Your task to perform on an android device: turn off smart reply in the gmail app Image 0: 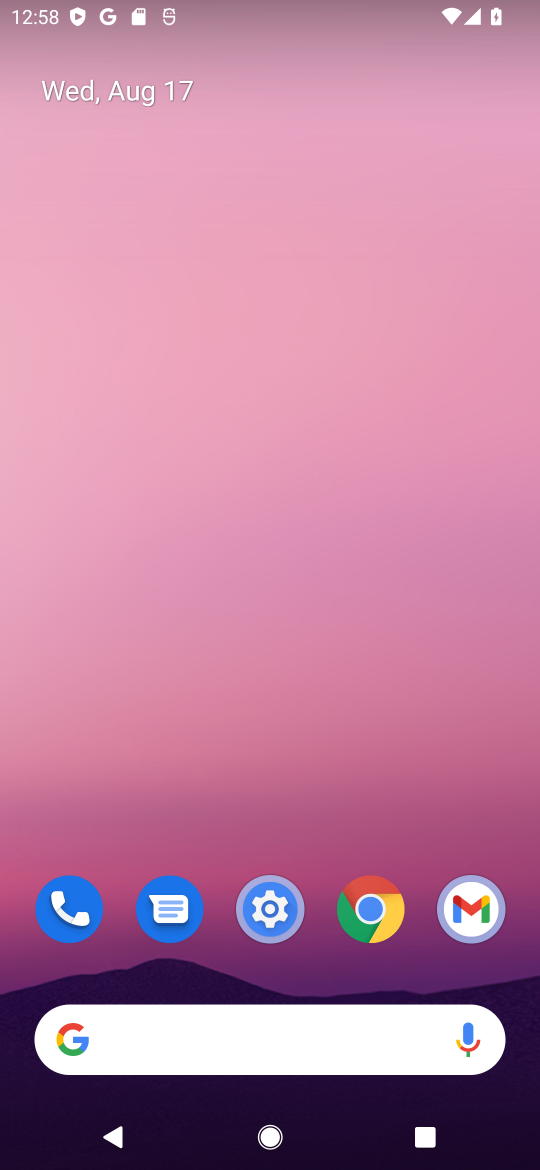
Step 0: drag from (359, 809) to (302, 47)
Your task to perform on an android device: turn off smart reply in the gmail app Image 1: 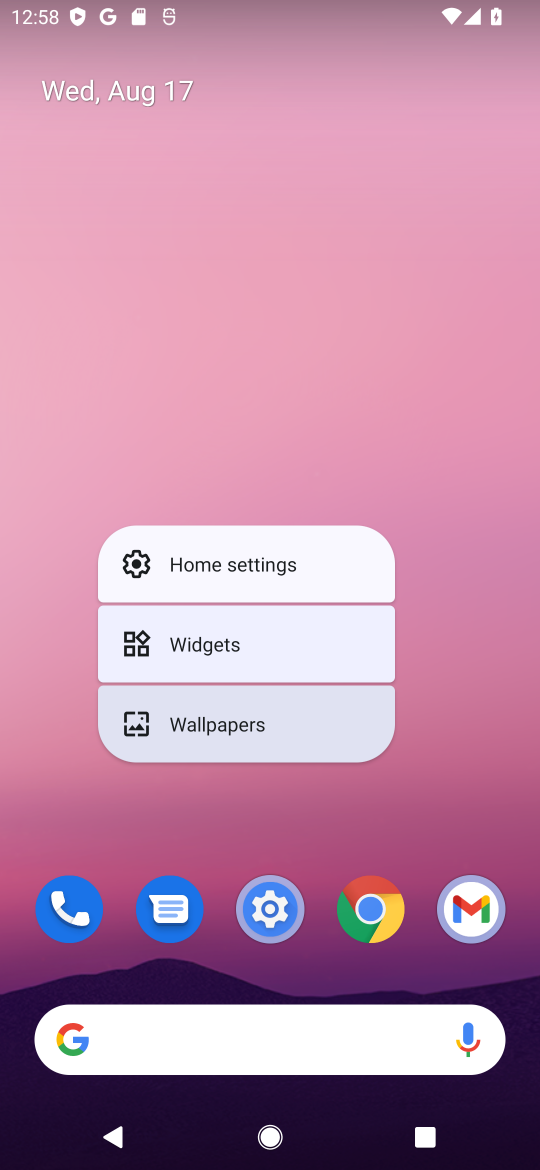
Step 1: click (476, 914)
Your task to perform on an android device: turn off smart reply in the gmail app Image 2: 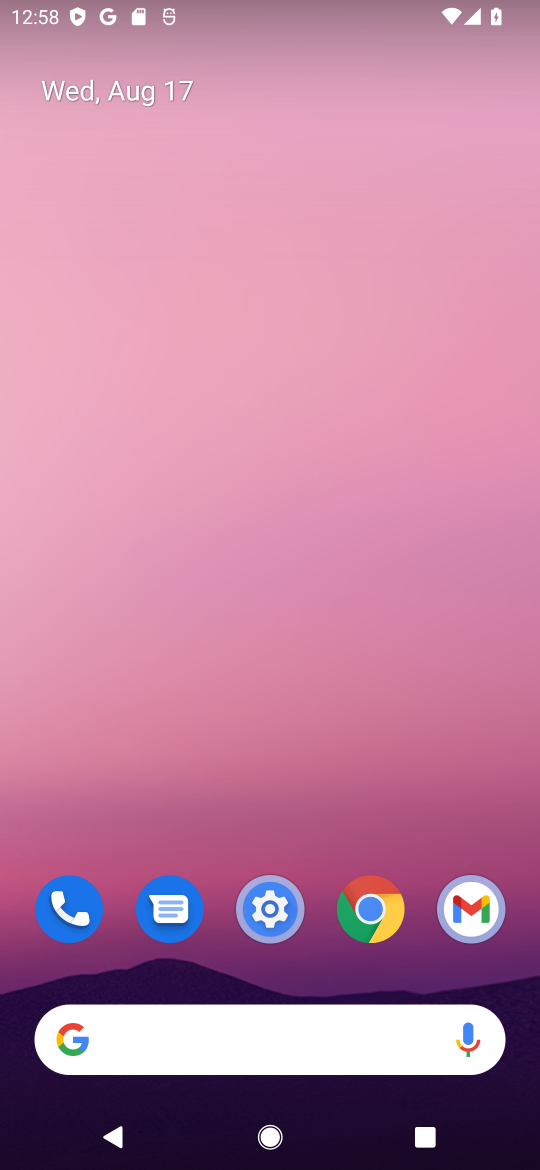
Step 2: click (472, 922)
Your task to perform on an android device: turn off smart reply in the gmail app Image 3: 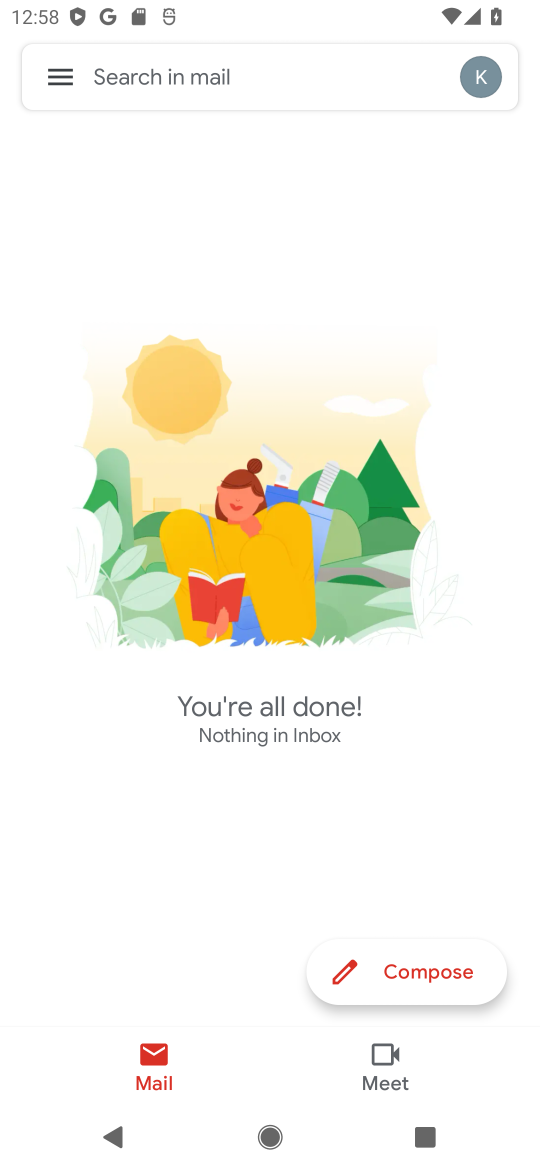
Step 3: click (61, 73)
Your task to perform on an android device: turn off smart reply in the gmail app Image 4: 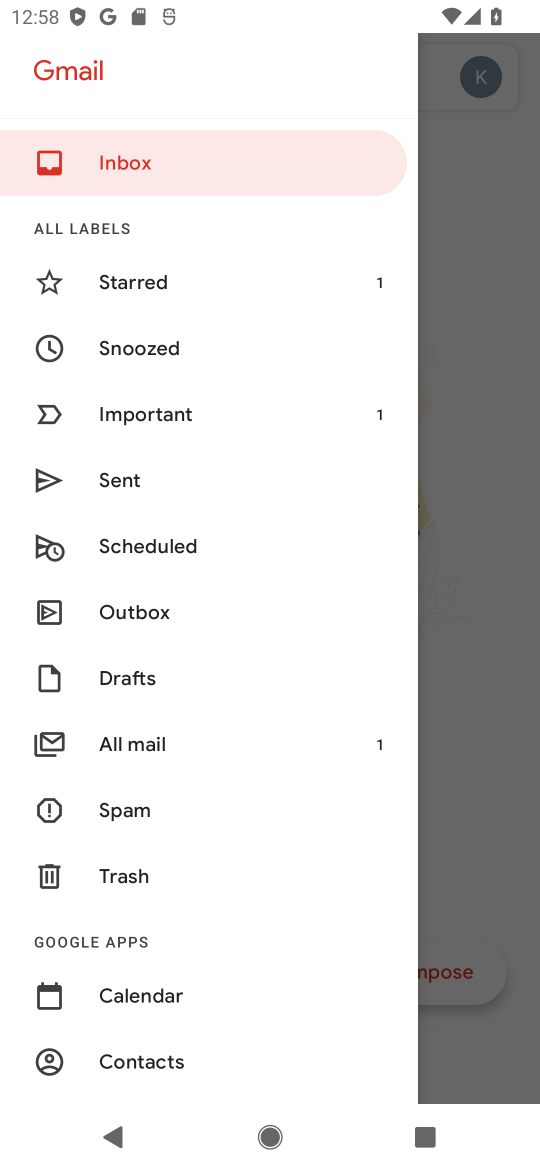
Step 4: drag from (204, 945) to (169, 387)
Your task to perform on an android device: turn off smart reply in the gmail app Image 5: 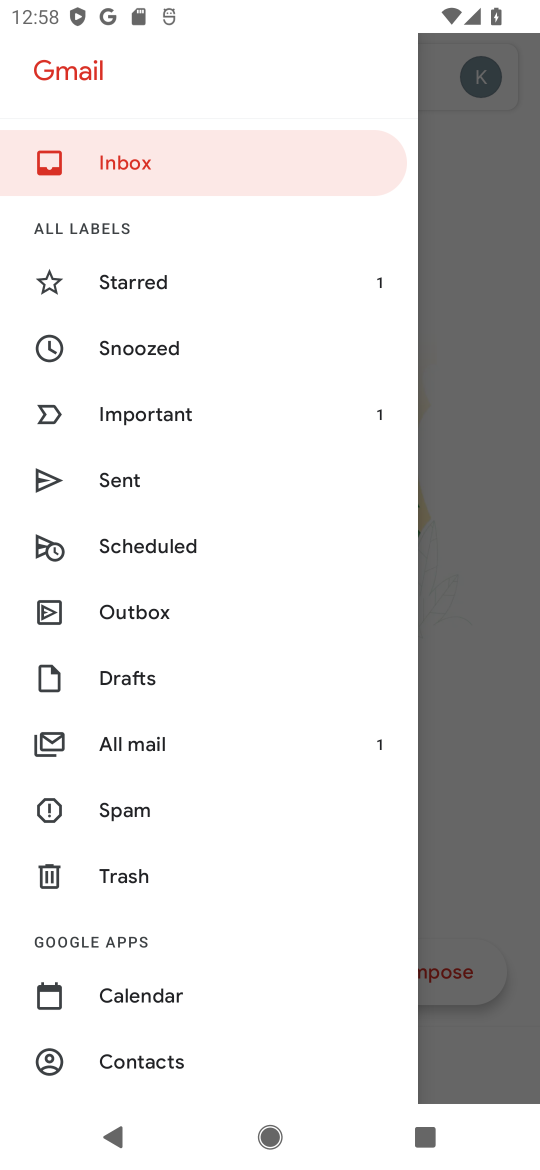
Step 5: drag from (210, 953) to (208, 336)
Your task to perform on an android device: turn off smart reply in the gmail app Image 6: 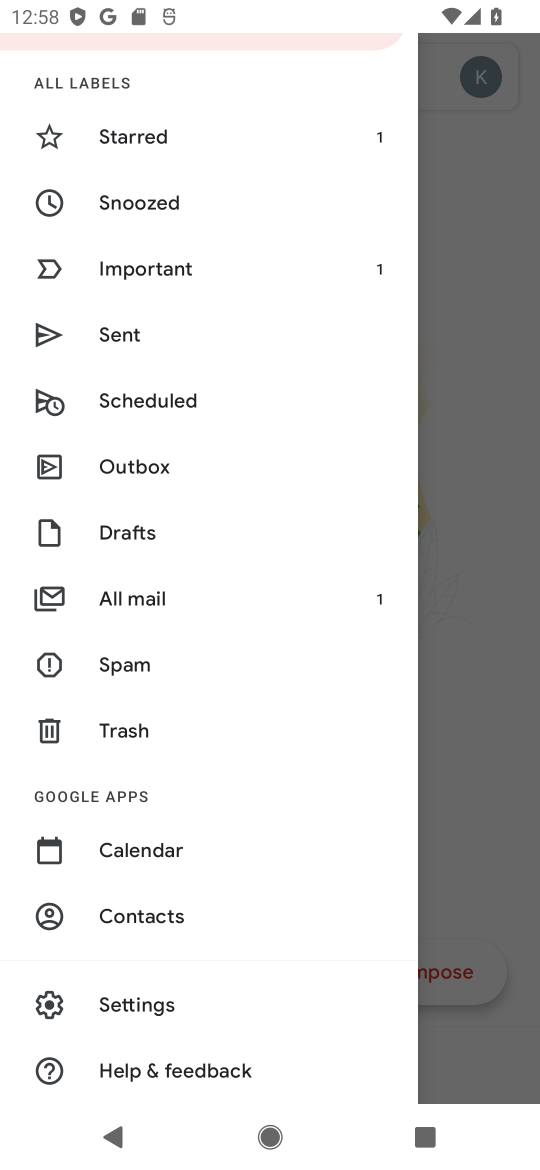
Step 6: click (117, 1002)
Your task to perform on an android device: turn off smart reply in the gmail app Image 7: 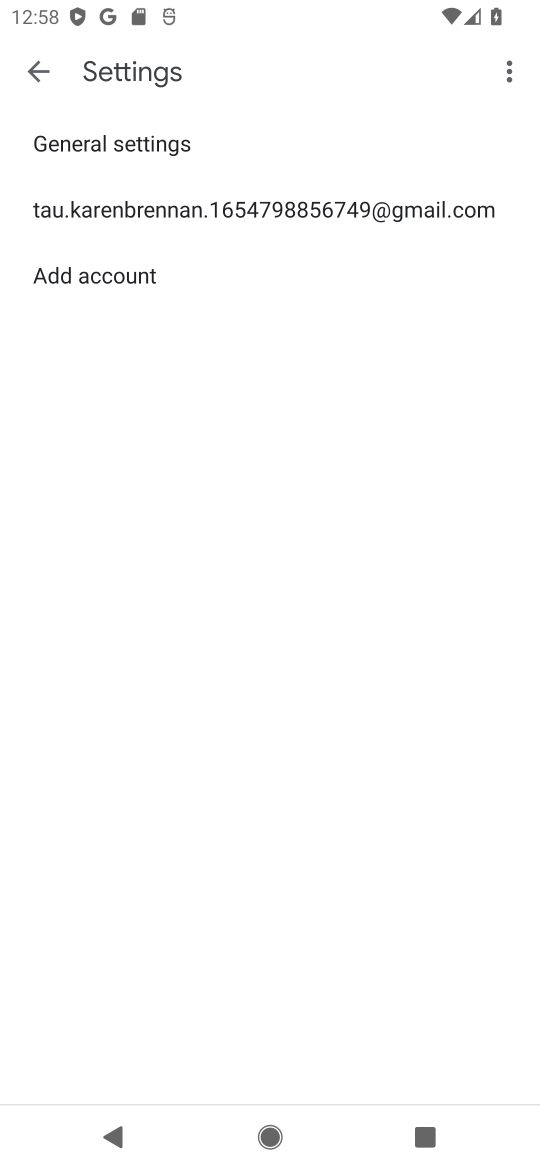
Step 7: click (137, 211)
Your task to perform on an android device: turn off smart reply in the gmail app Image 8: 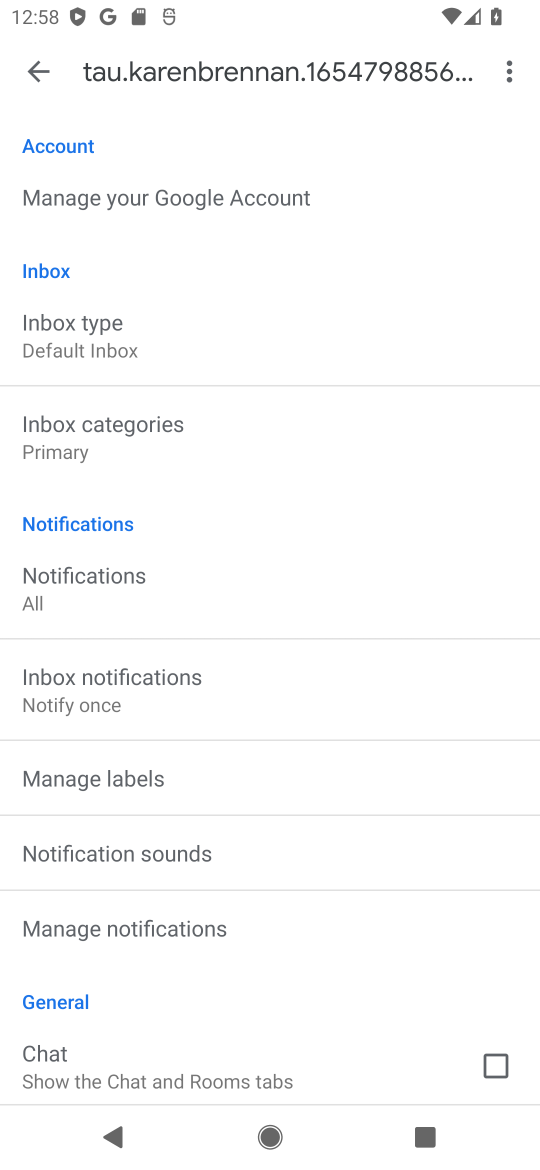
Step 8: drag from (261, 963) to (261, 564)
Your task to perform on an android device: turn off smart reply in the gmail app Image 9: 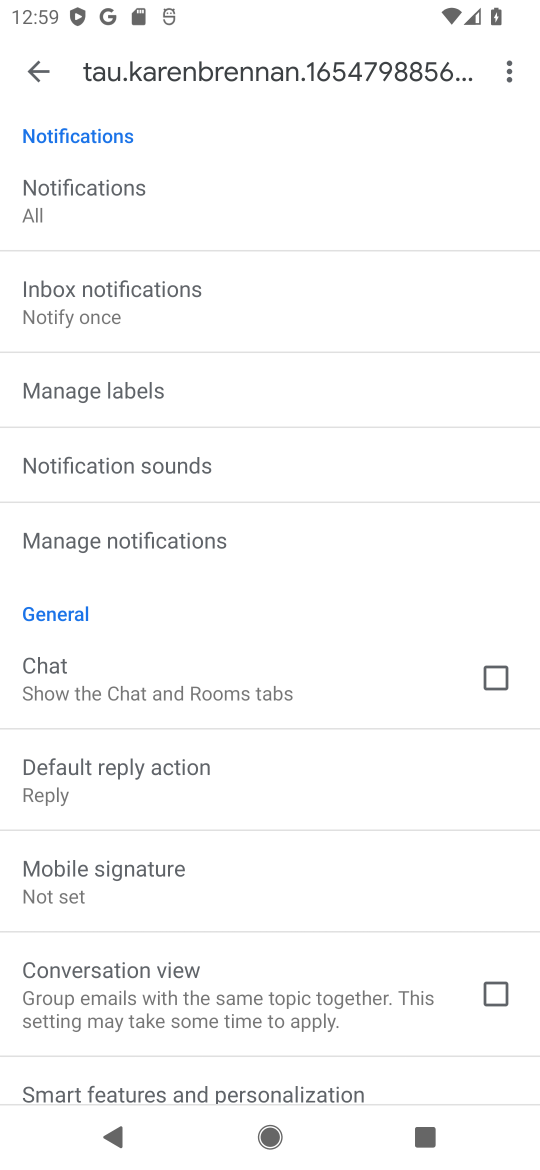
Step 9: drag from (247, 901) to (206, 323)
Your task to perform on an android device: turn off smart reply in the gmail app Image 10: 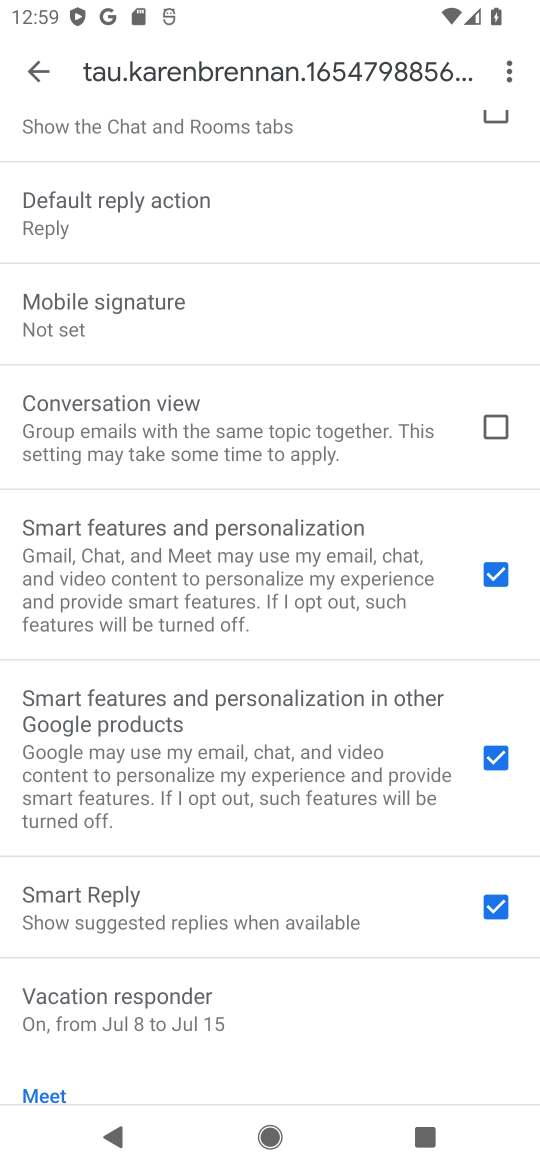
Step 10: click (488, 905)
Your task to perform on an android device: turn off smart reply in the gmail app Image 11: 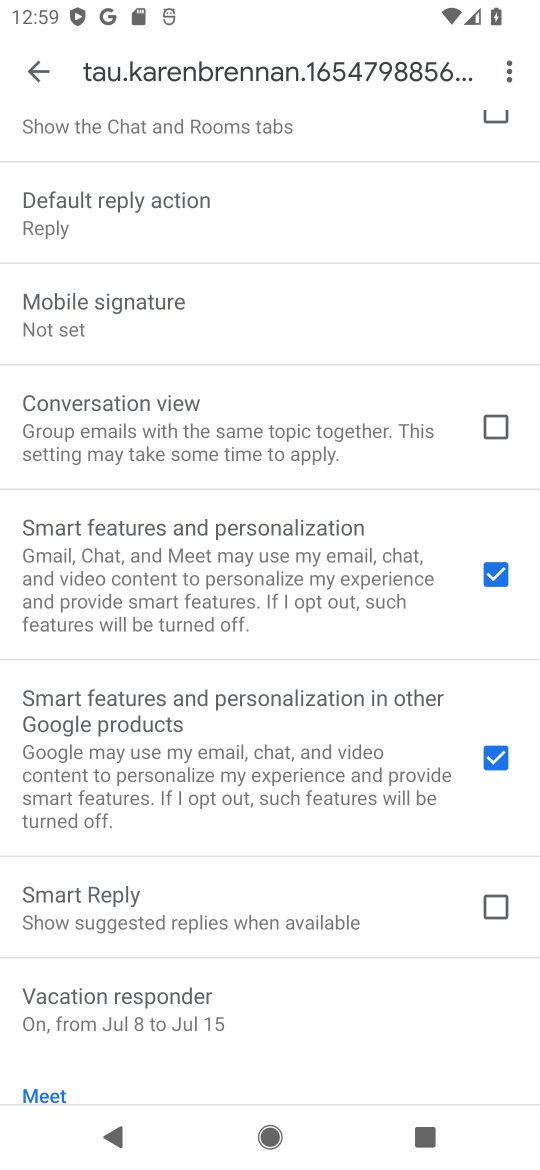
Step 11: task complete